Your task to perform on an android device: Go to calendar. Show me events next week Image 0: 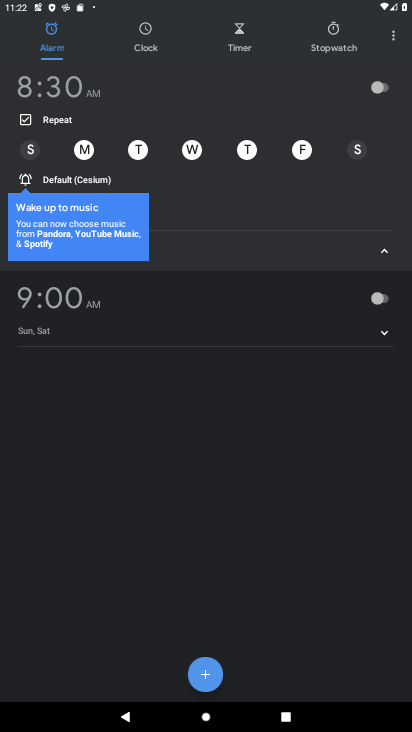
Step 0: press home button
Your task to perform on an android device: Go to calendar. Show me events next week Image 1: 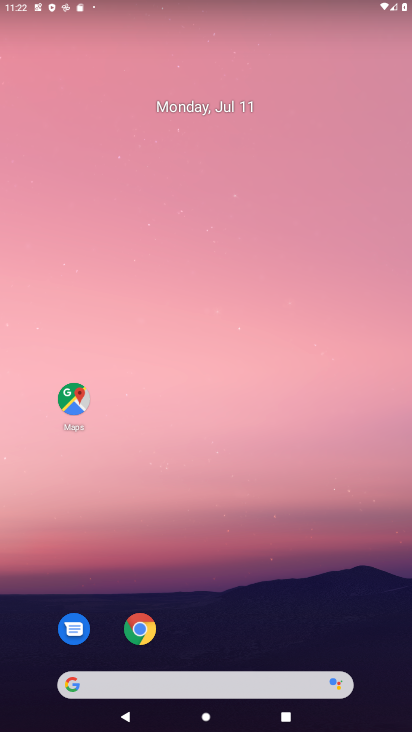
Step 1: drag from (227, 625) to (155, 53)
Your task to perform on an android device: Go to calendar. Show me events next week Image 2: 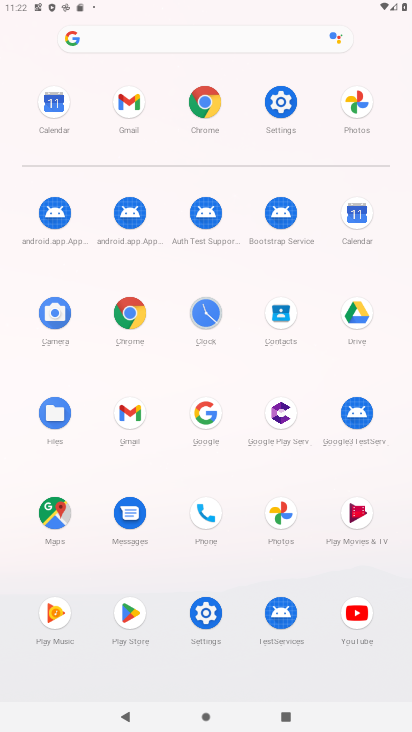
Step 2: click (273, 111)
Your task to perform on an android device: Go to calendar. Show me events next week Image 3: 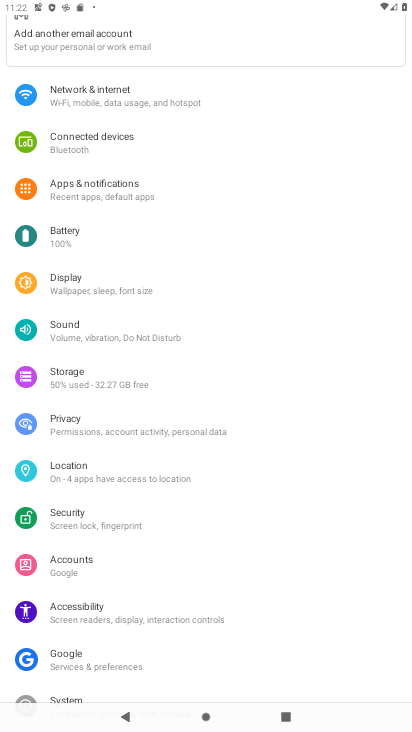
Step 3: press home button
Your task to perform on an android device: Go to calendar. Show me events next week Image 4: 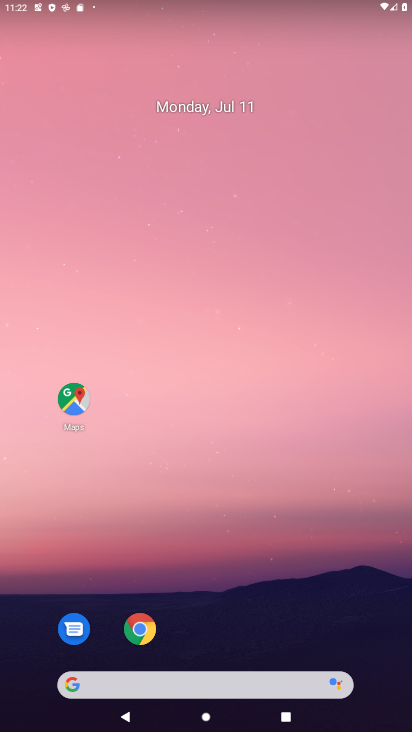
Step 4: drag from (233, 618) to (173, 31)
Your task to perform on an android device: Go to calendar. Show me events next week Image 5: 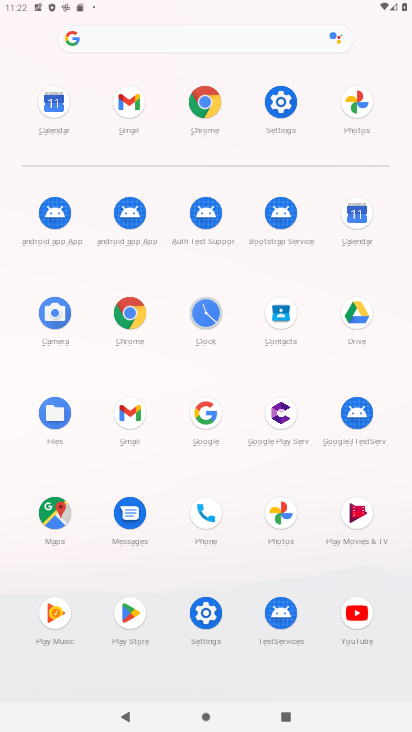
Step 5: click (41, 114)
Your task to perform on an android device: Go to calendar. Show me events next week Image 6: 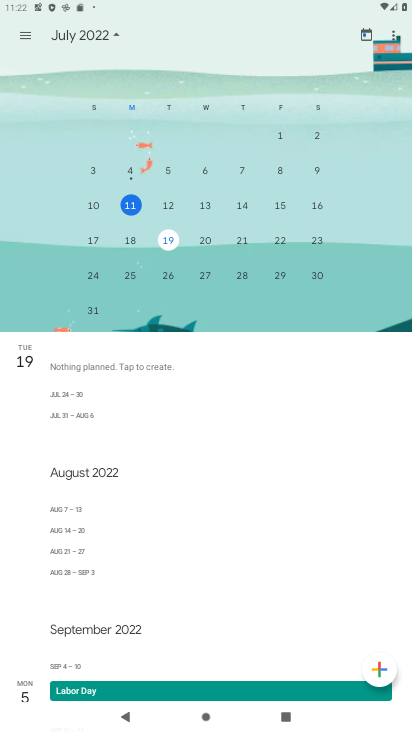
Step 6: task complete